Your task to perform on an android device: Open sound settings Image 0: 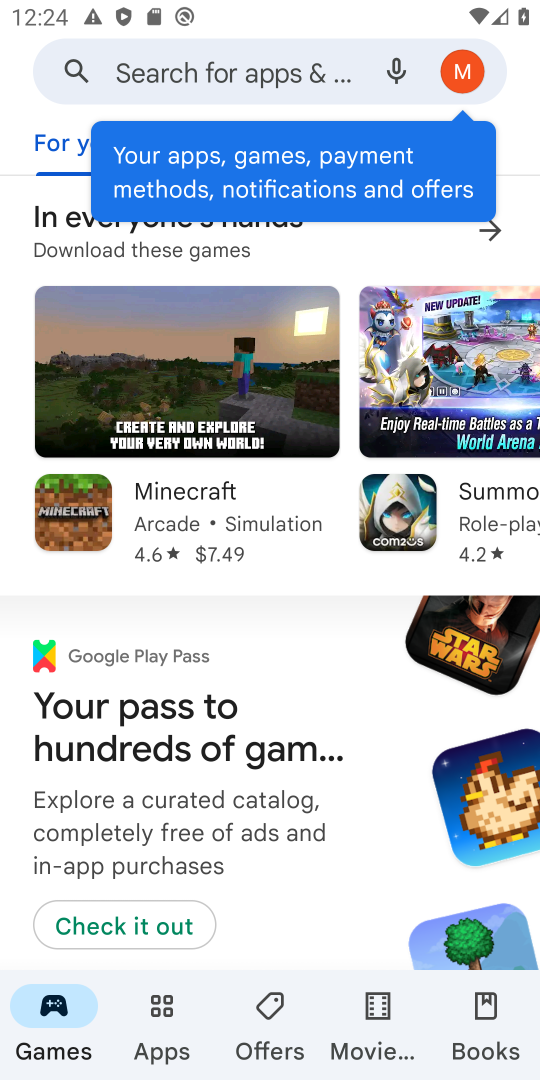
Step 0: press home button
Your task to perform on an android device: Open sound settings Image 1: 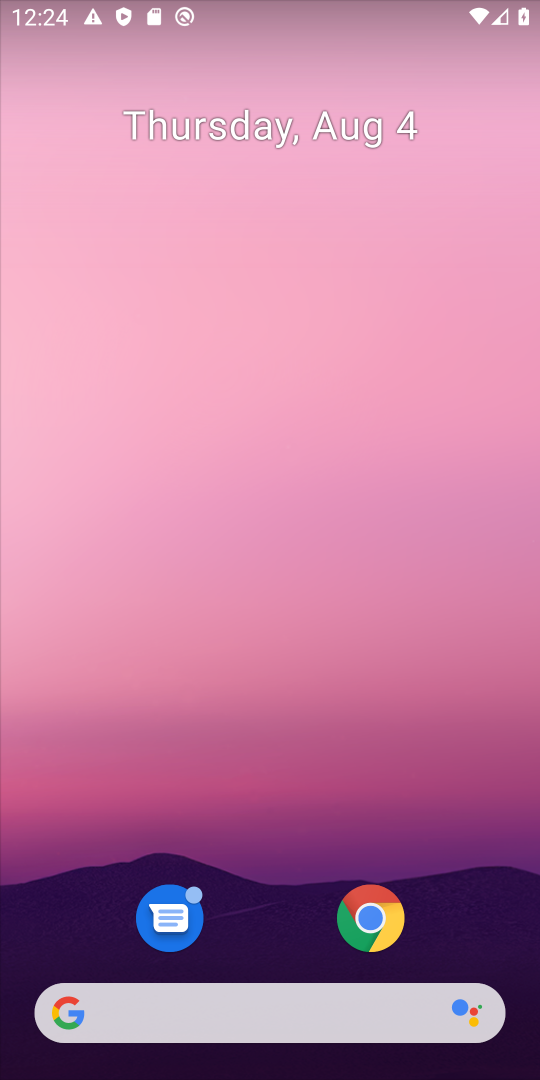
Step 1: drag from (282, 911) to (317, 125)
Your task to perform on an android device: Open sound settings Image 2: 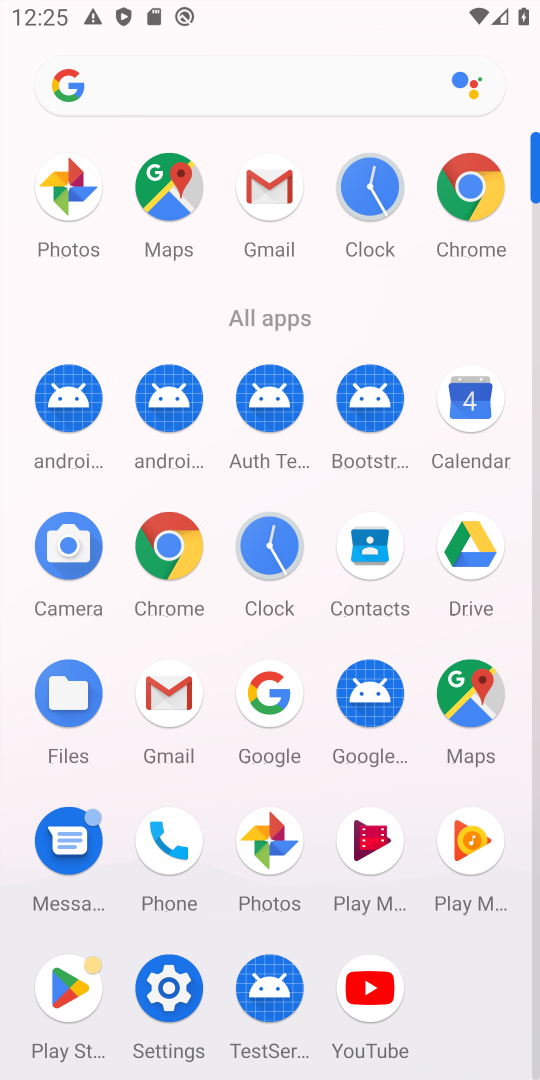
Step 2: click (197, 934)
Your task to perform on an android device: Open sound settings Image 3: 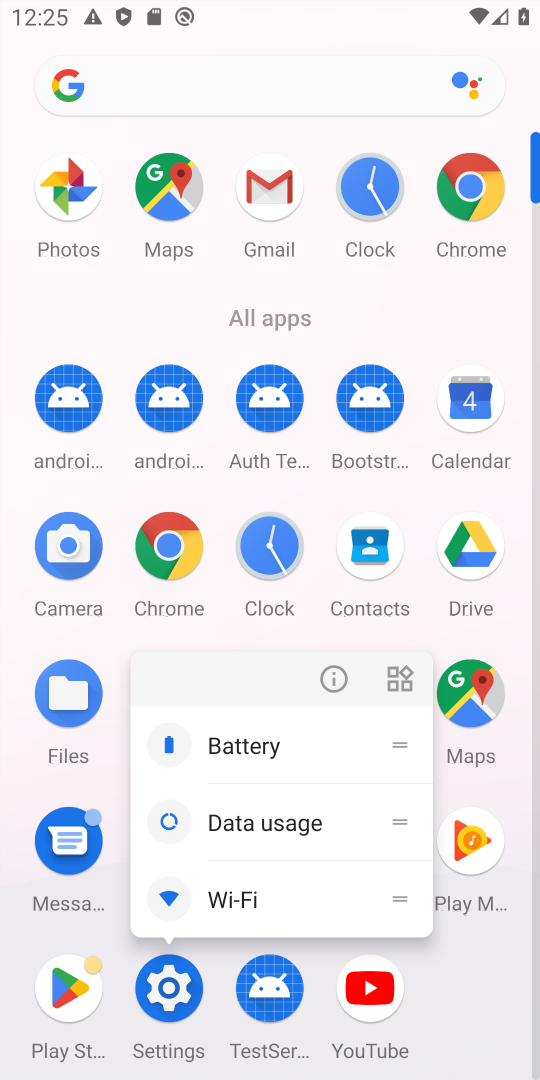
Step 3: click (148, 1020)
Your task to perform on an android device: Open sound settings Image 4: 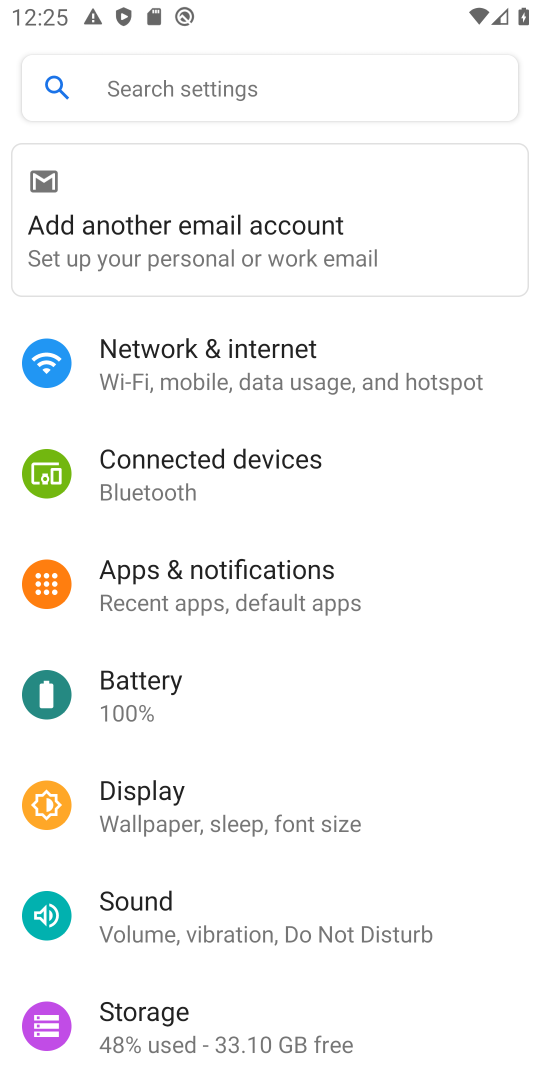
Step 4: click (215, 907)
Your task to perform on an android device: Open sound settings Image 5: 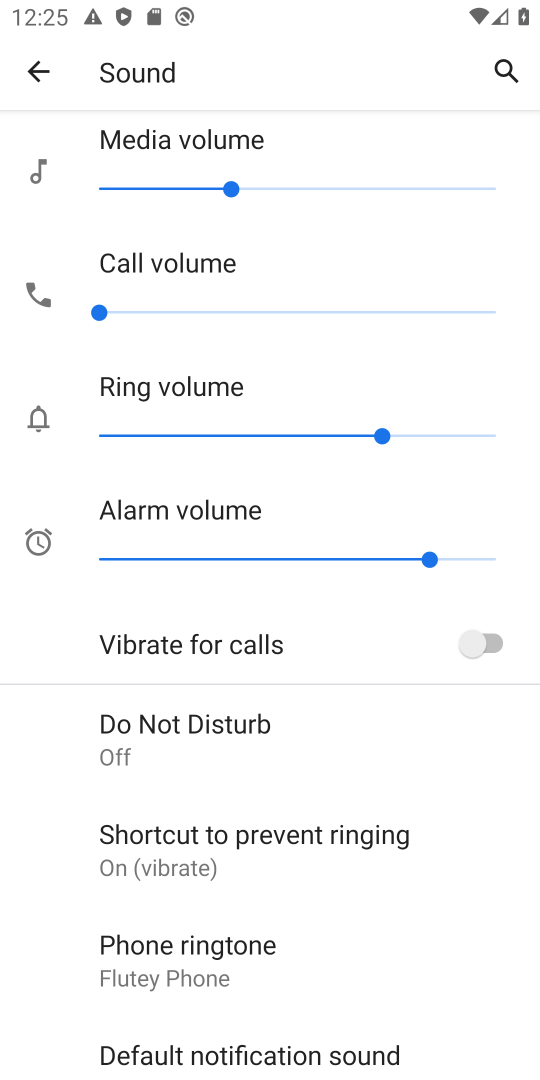
Step 5: task complete